Your task to perform on an android device: Go to display settings Image 0: 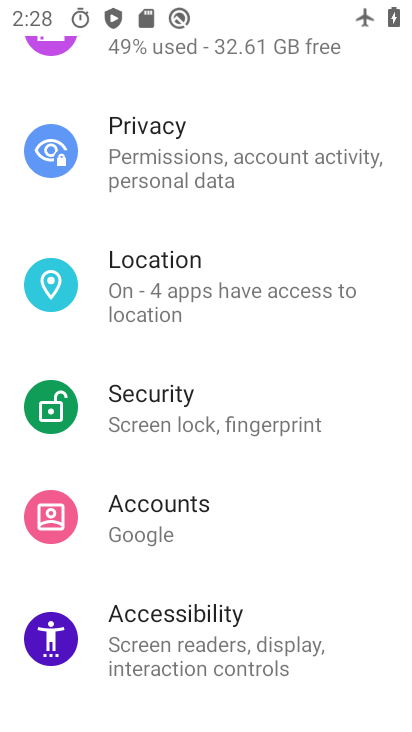
Step 0: drag from (134, 111) to (85, 639)
Your task to perform on an android device: Go to display settings Image 1: 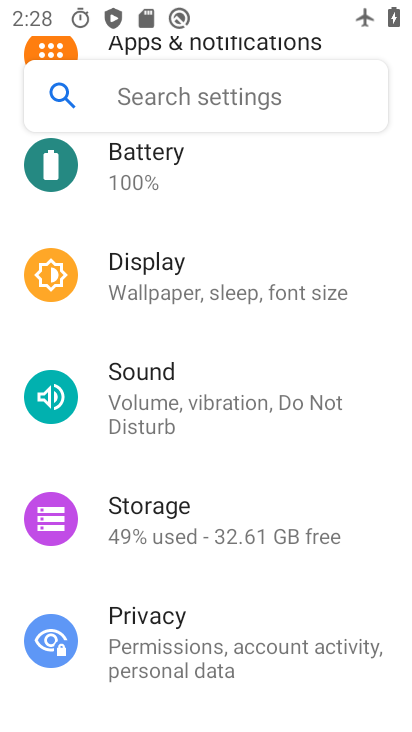
Step 1: click (191, 287)
Your task to perform on an android device: Go to display settings Image 2: 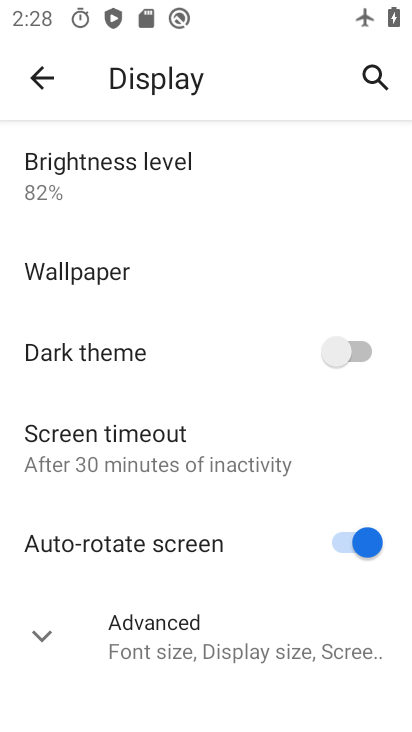
Step 2: task complete